Your task to perform on an android device: turn on wifi Image 0: 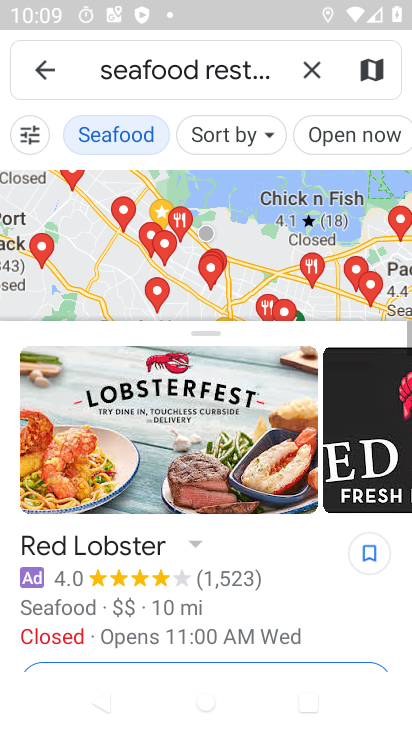
Step 0: drag from (275, 494) to (404, 107)
Your task to perform on an android device: turn on wifi Image 1: 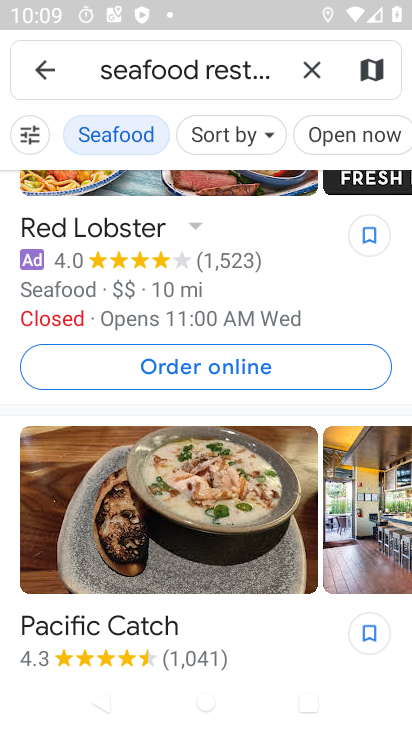
Step 1: press home button
Your task to perform on an android device: turn on wifi Image 2: 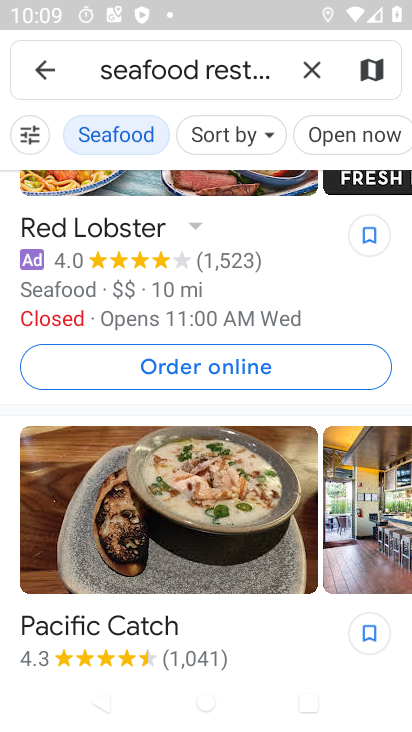
Step 2: drag from (404, 107) to (345, 308)
Your task to perform on an android device: turn on wifi Image 3: 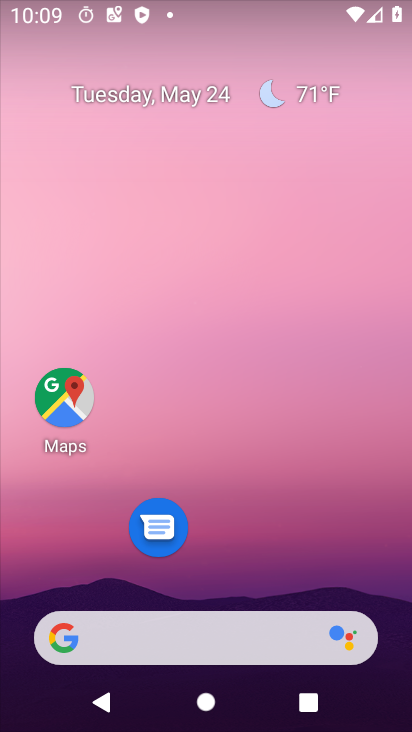
Step 3: drag from (239, 552) to (253, 89)
Your task to perform on an android device: turn on wifi Image 4: 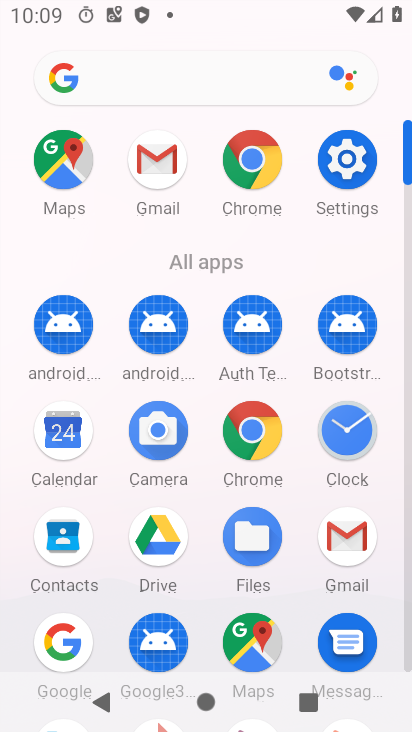
Step 4: click (345, 158)
Your task to perform on an android device: turn on wifi Image 5: 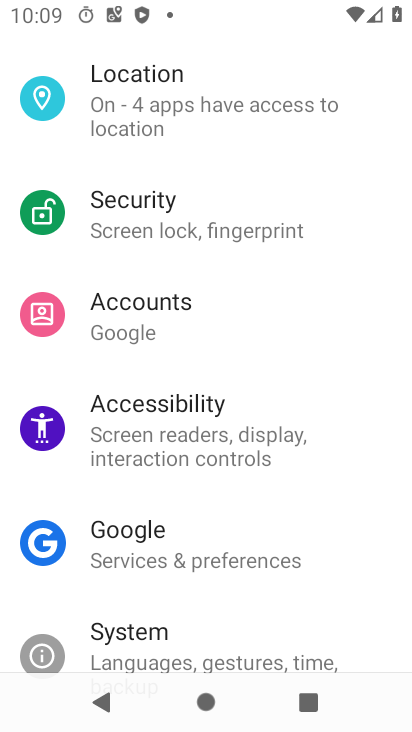
Step 5: drag from (218, 112) to (183, 696)
Your task to perform on an android device: turn on wifi Image 6: 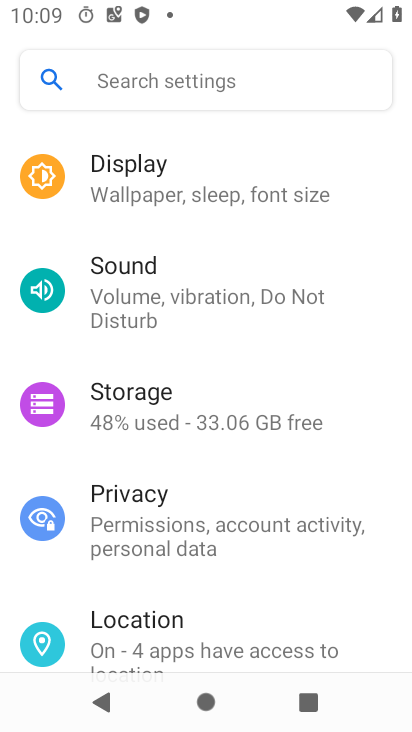
Step 6: drag from (136, 137) to (232, 692)
Your task to perform on an android device: turn on wifi Image 7: 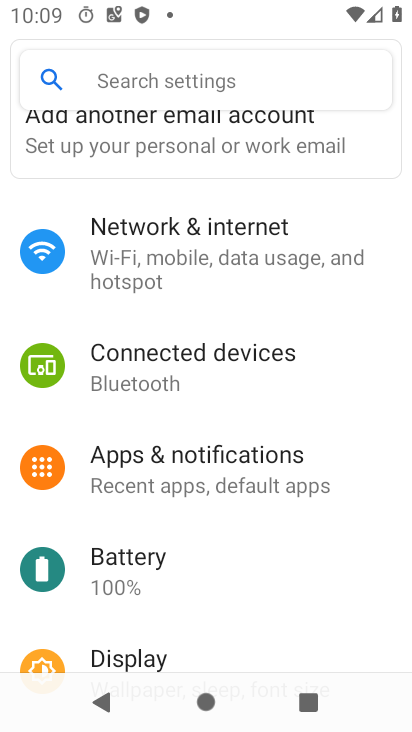
Step 7: click (178, 277)
Your task to perform on an android device: turn on wifi Image 8: 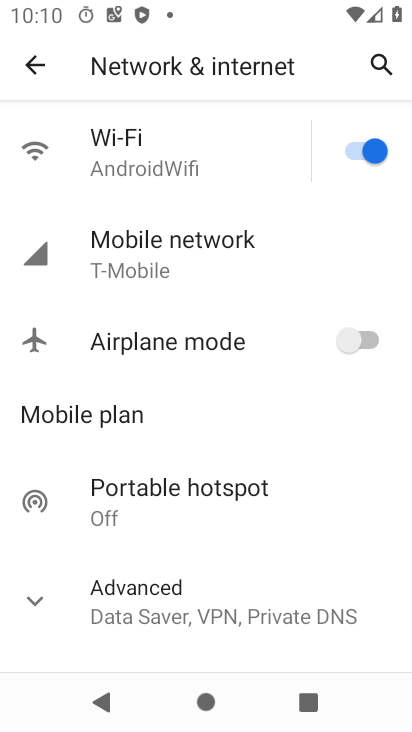
Step 8: task complete